Your task to perform on an android device: toggle notifications settings in the gmail app Image 0: 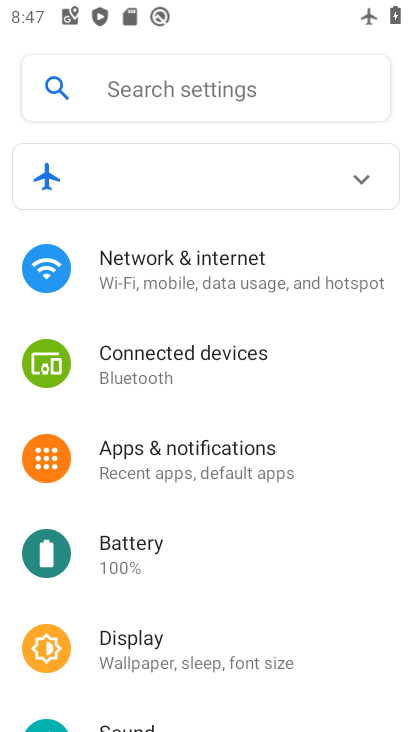
Step 0: press home button
Your task to perform on an android device: toggle notifications settings in the gmail app Image 1: 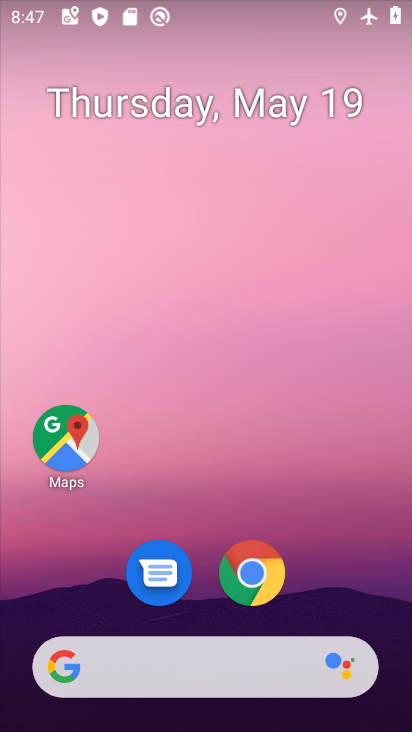
Step 1: drag from (351, 560) to (351, 20)
Your task to perform on an android device: toggle notifications settings in the gmail app Image 2: 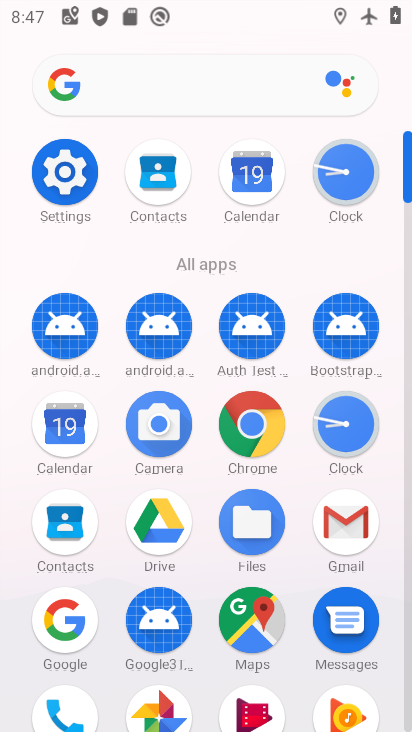
Step 2: click (342, 550)
Your task to perform on an android device: toggle notifications settings in the gmail app Image 3: 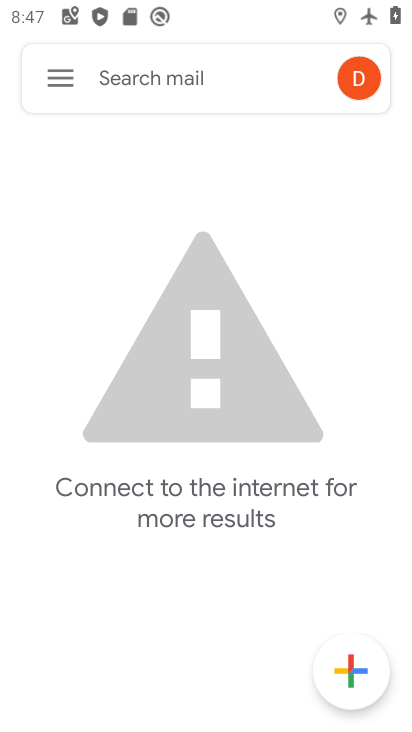
Step 3: click (64, 77)
Your task to perform on an android device: toggle notifications settings in the gmail app Image 4: 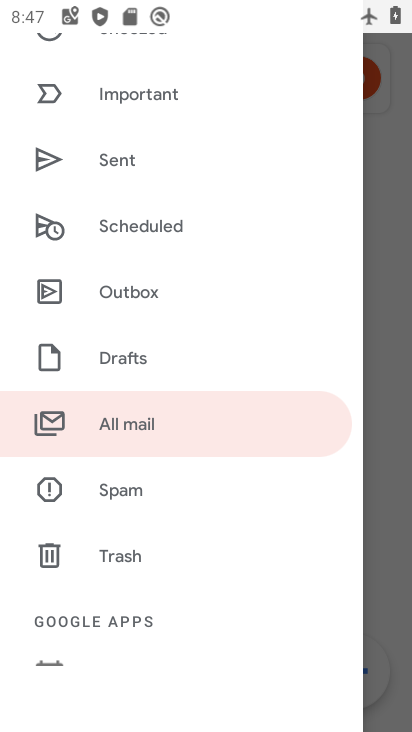
Step 4: drag from (214, 570) to (200, 199)
Your task to perform on an android device: toggle notifications settings in the gmail app Image 5: 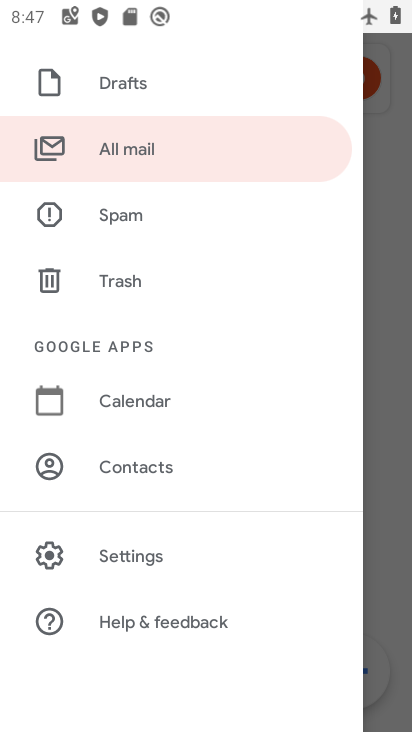
Step 5: click (133, 559)
Your task to perform on an android device: toggle notifications settings in the gmail app Image 6: 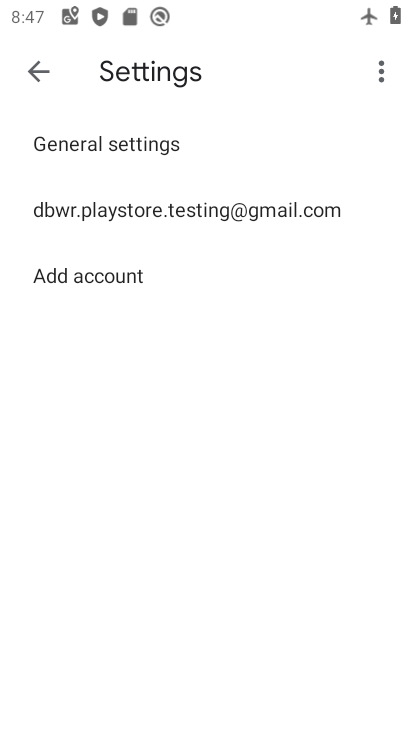
Step 6: click (72, 147)
Your task to perform on an android device: toggle notifications settings in the gmail app Image 7: 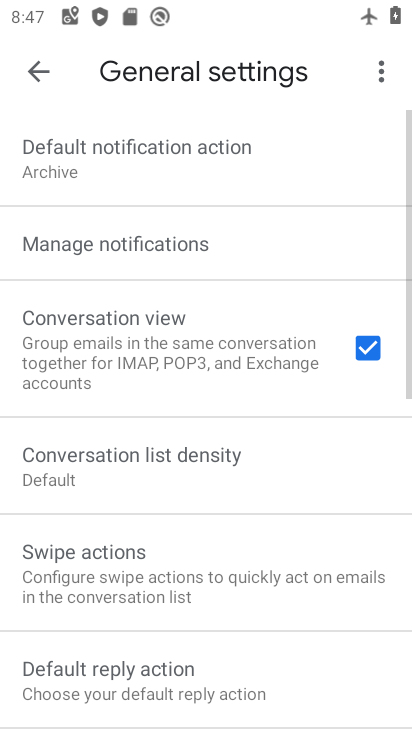
Step 7: click (96, 236)
Your task to perform on an android device: toggle notifications settings in the gmail app Image 8: 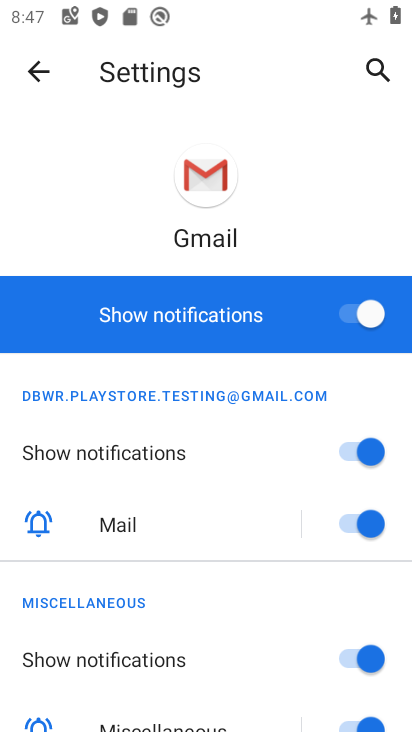
Step 8: click (366, 307)
Your task to perform on an android device: toggle notifications settings in the gmail app Image 9: 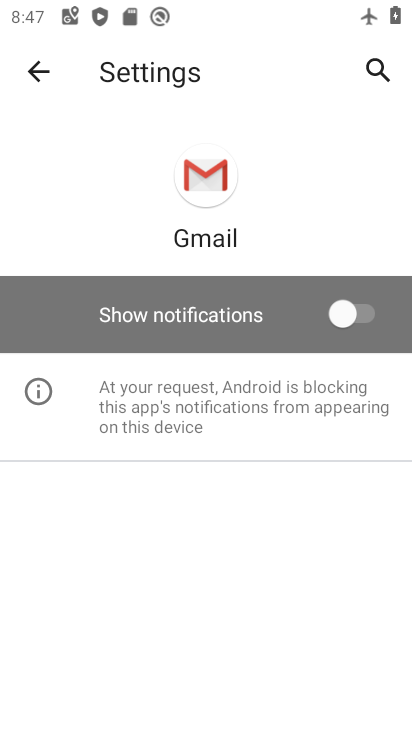
Step 9: task complete